Your task to perform on an android device: turn off priority inbox in the gmail app Image 0: 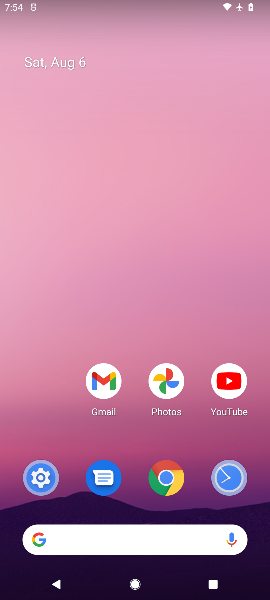
Step 0: click (99, 388)
Your task to perform on an android device: turn off priority inbox in the gmail app Image 1: 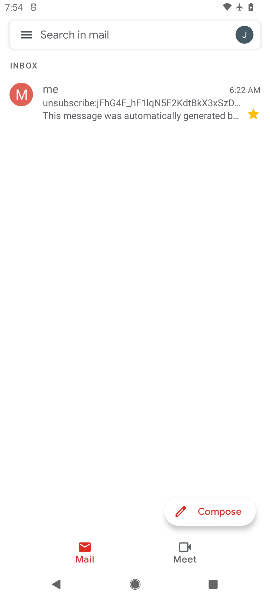
Step 1: click (22, 32)
Your task to perform on an android device: turn off priority inbox in the gmail app Image 2: 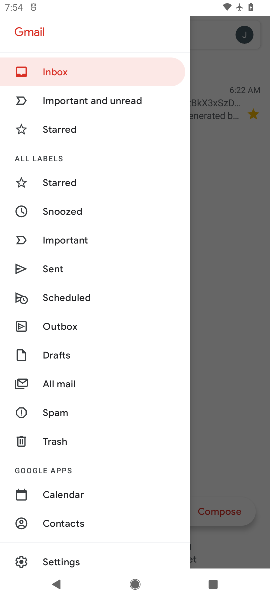
Step 2: click (65, 561)
Your task to perform on an android device: turn off priority inbox in the gmail app Image 3: 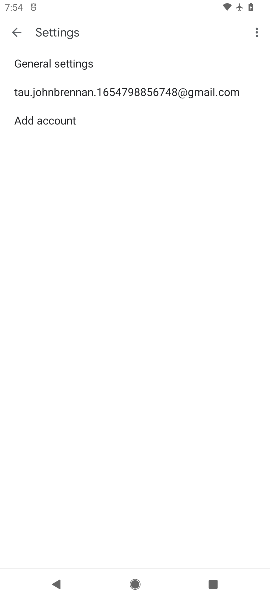
Step 3: click (64, 84)
Your task to perform on an android device: turn off priority inbox in the gmail app Image 4: 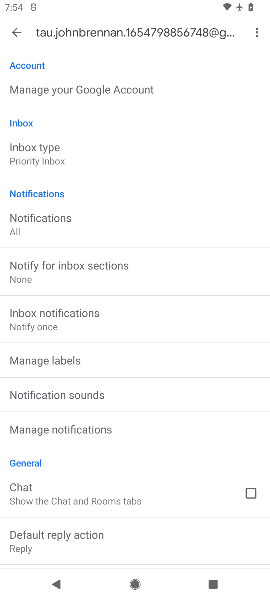
Step 4: click (31, 150)
Your task to perform on an android device: turn off priority inbox in the gmail app Image 5: 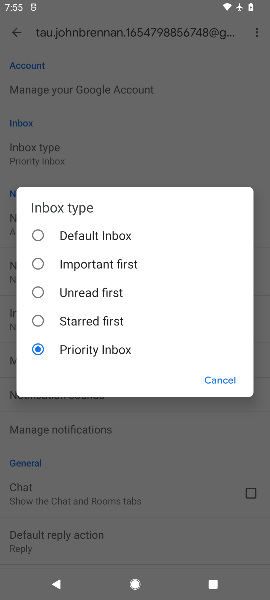
Step 5: click (33, 231)
Your task to perform on an android device: turn off priority inbox in the gmail app Image 6: 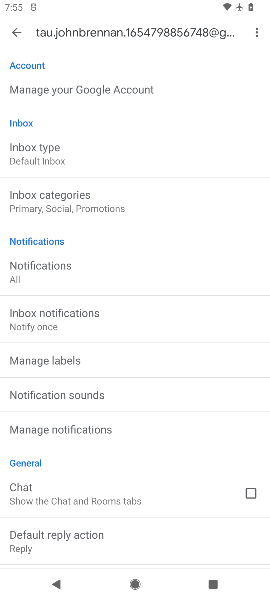
Step 6: task complete